Your task to perform on an android device: Add logitech g pro to the cart on walmart Image 0: 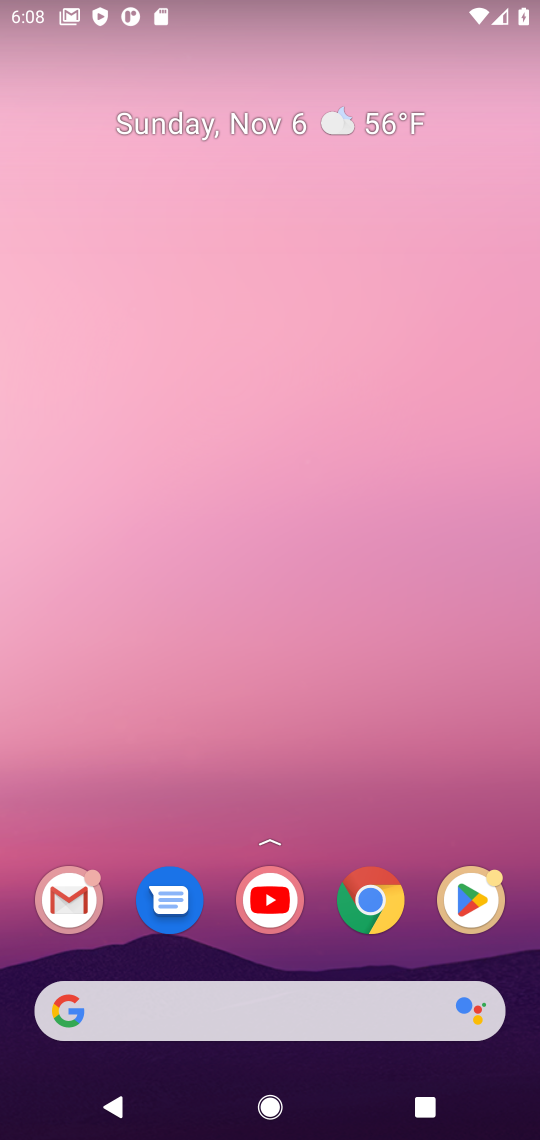
Step 0: drag from (319, 943) to (533, 397)
Your task to perform on an android device: Add logitech g pro to the cart on walmart Image 1: 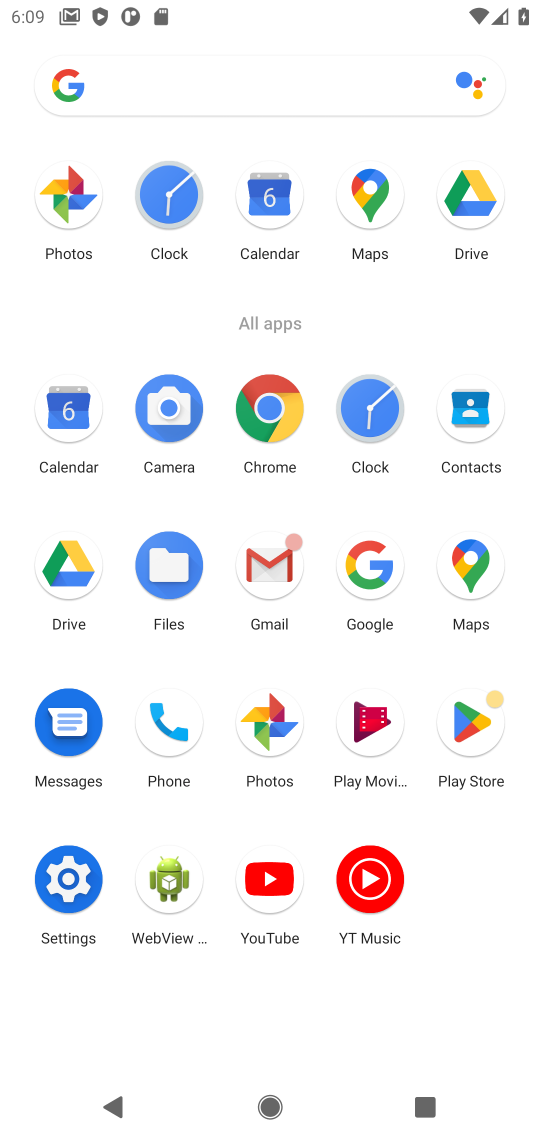
Step 1: click (268, 413)
Your task to perform on an android device: Add logitech g pro to the cart on walmart Image 2: 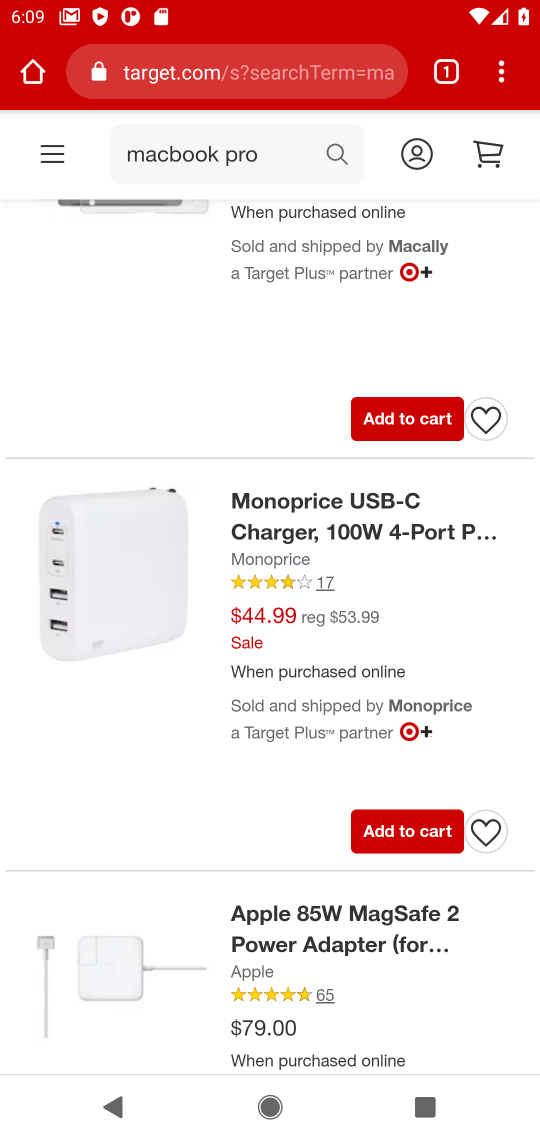
Step 2: click (273, 62)
Your task to perform on an android device: Add logitech g pro to the cart on walmart Image 3: 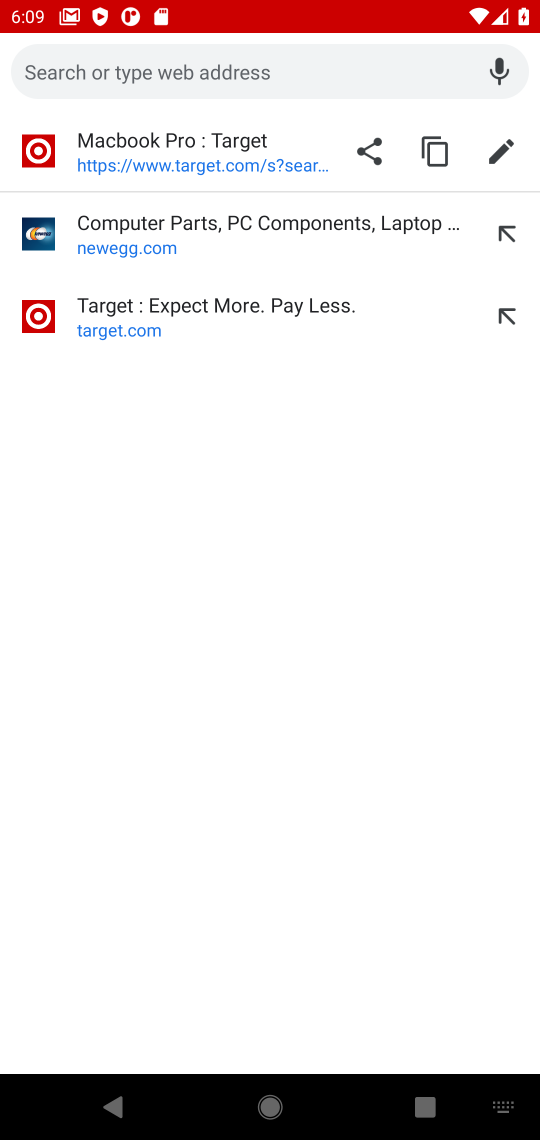
Step 3: type "walmart.com"
Your task to perform on an android device: Add logitech g pro to the cart on walmart Image 4: 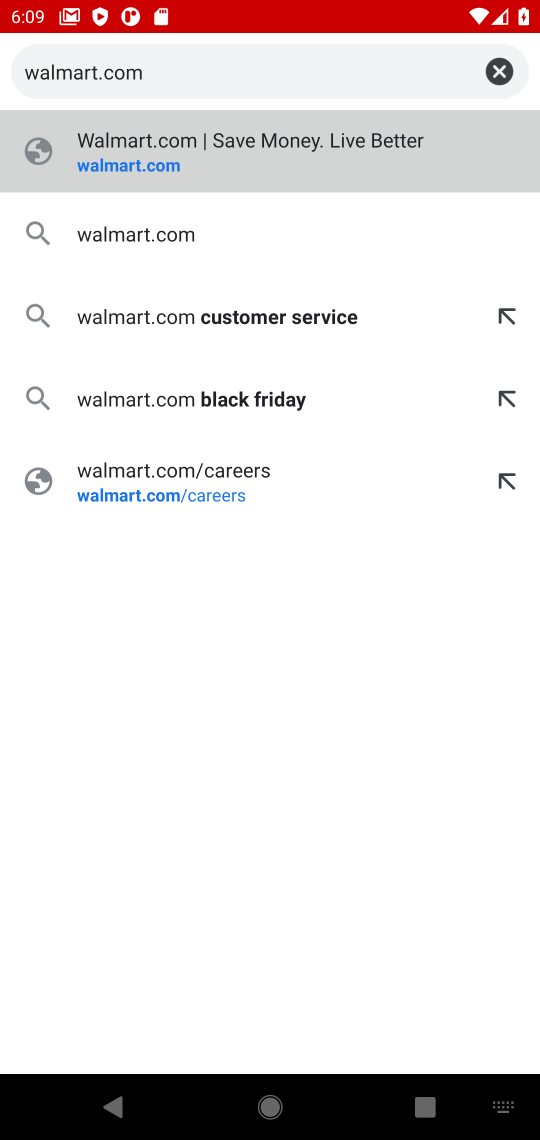
Step 4: press enter
Your task to perform on an android device: Add logitech g pro to the cart on walmart Image 5: 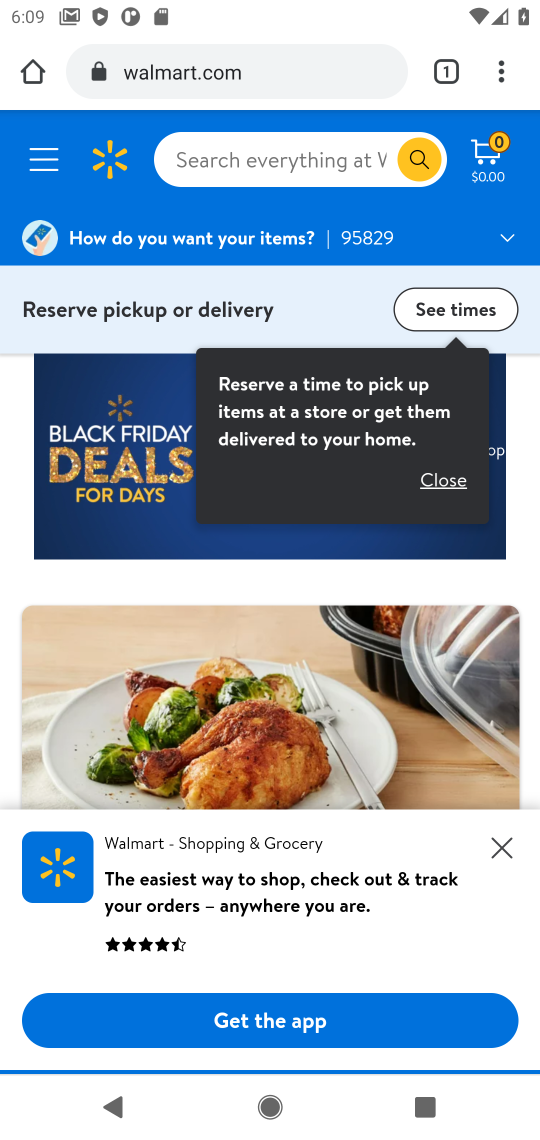
Step 5: click (247, 172)
Your task to perform on an android device: Add logitech g pro to the cart on walmart Image 6: 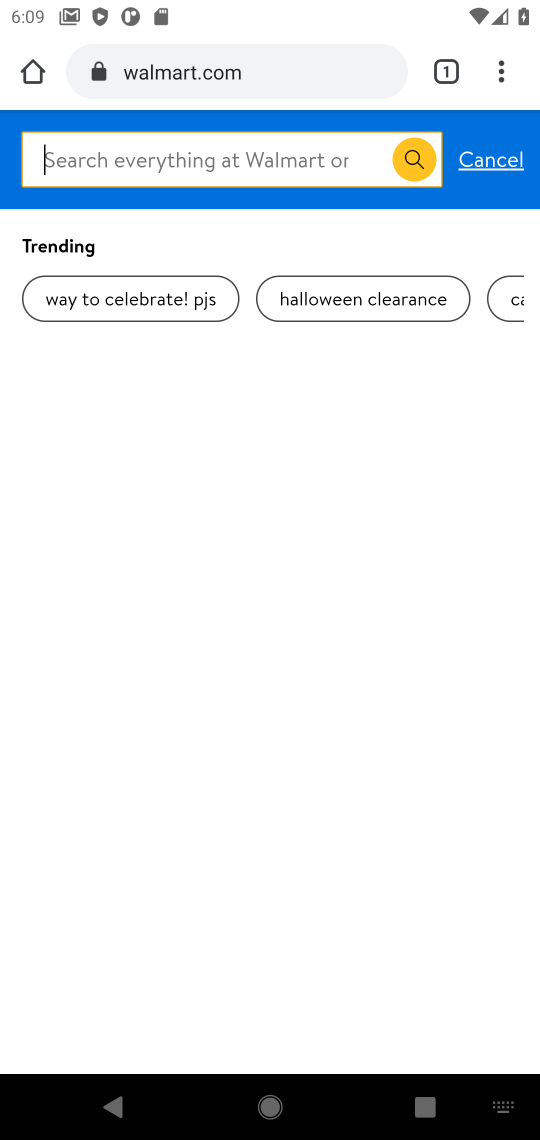
Step 6: type "logitech g pro"
Your task to perform on an android device: Add logitech g pro to the cart on walmart Image 7: 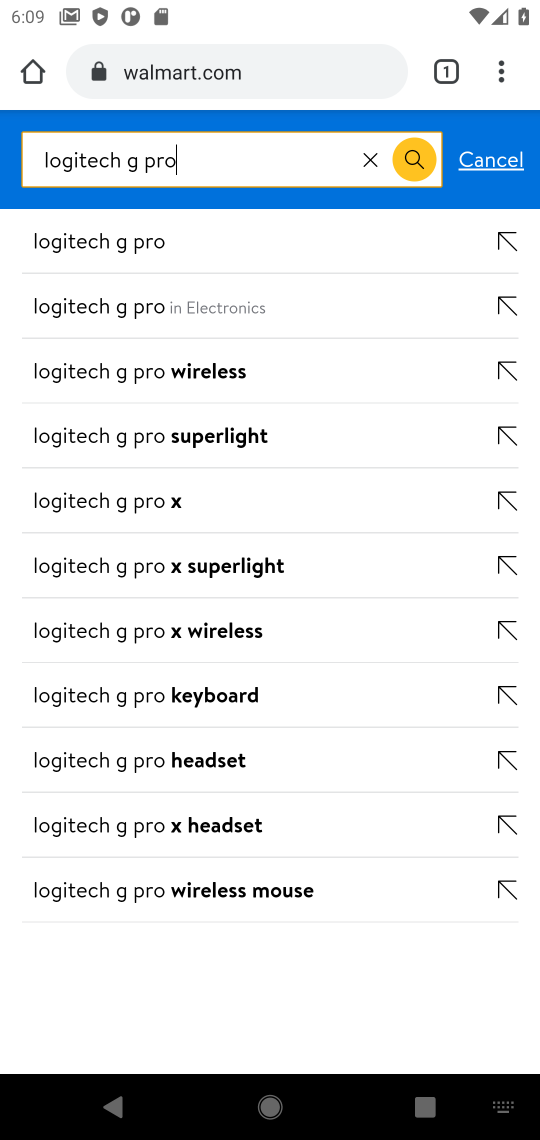
Step 7: press enter
Your task to perform on an android device: Add logitech g pro to the cart on walmart Image 8: 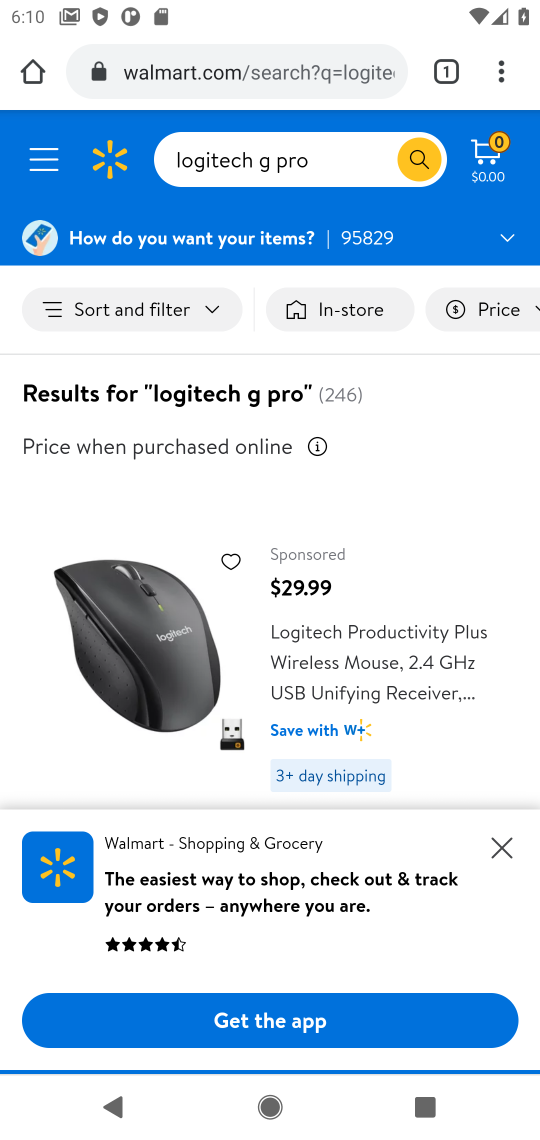
Step 8: drag from (417, 781) to (461, 294)
Your task to perform on an android device: Add logitech g pro to the cart on walmart Image 9: 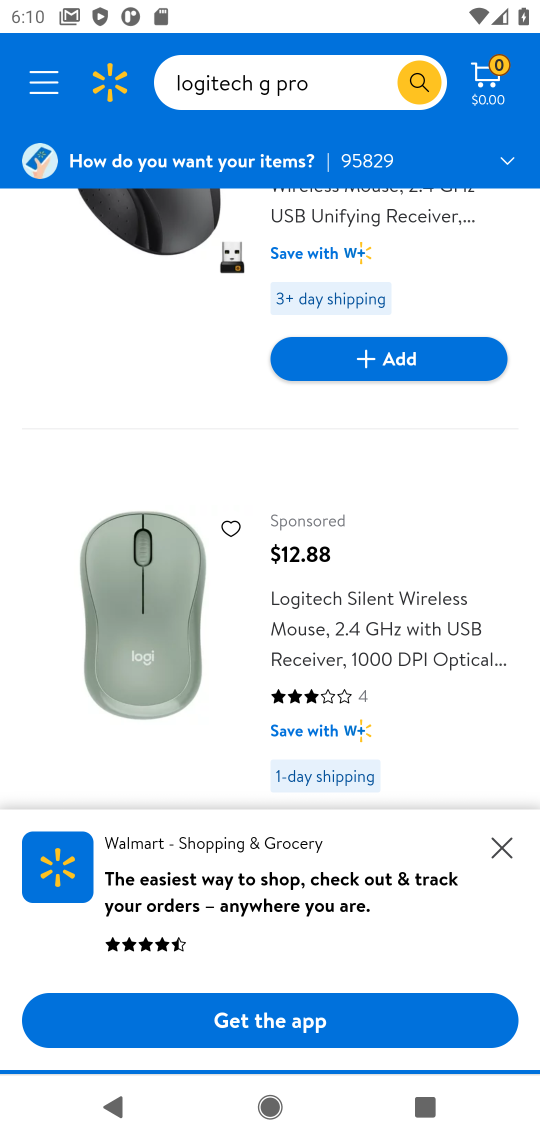
Step 9: drag from (371, 848) to (438, 133)
Your task to perform on an android device: Add logitech g pro to the cart on walmart Image 10: 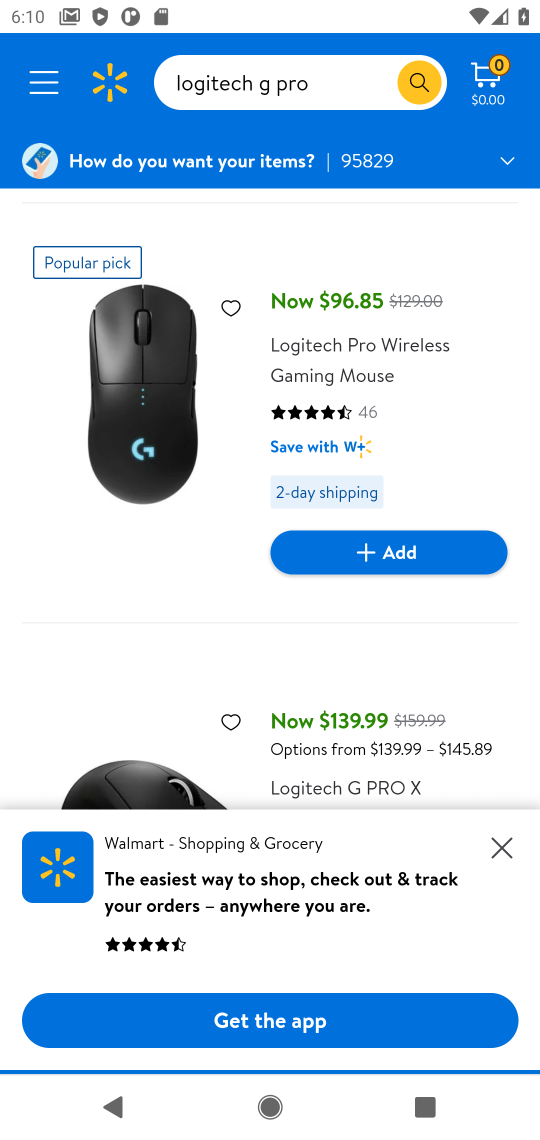
Step 10: drag from (376, 314) to (419, 127)
Your task to perform on an android device: Add logitech g pro to the cart on walmart Image 11: 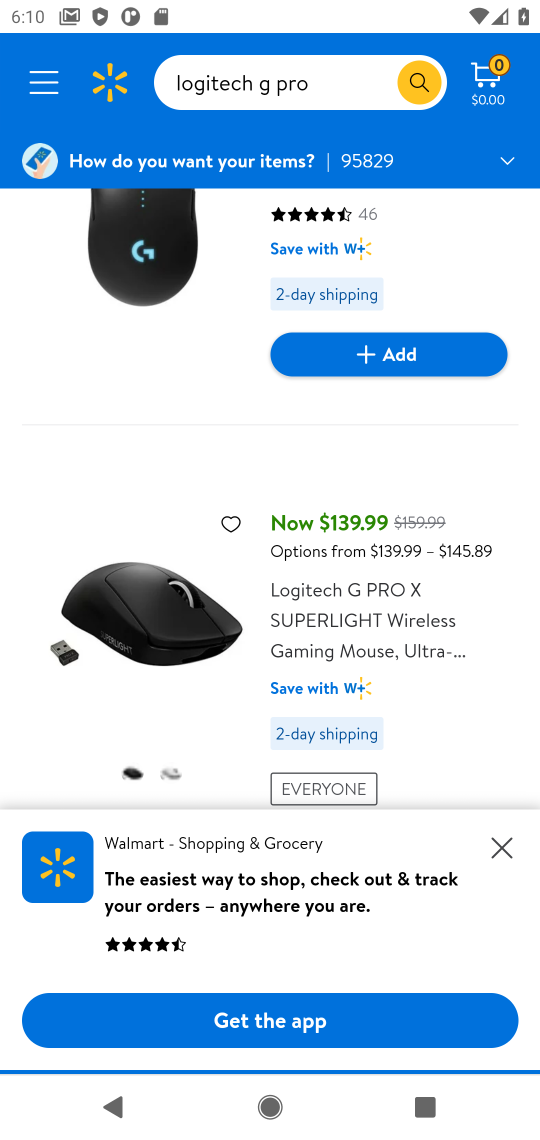
Step 11: drag from (336, 651) to (366, 339)
Your task to perform on an android device: Add logitech g pro to the cart on walmart Image 12: 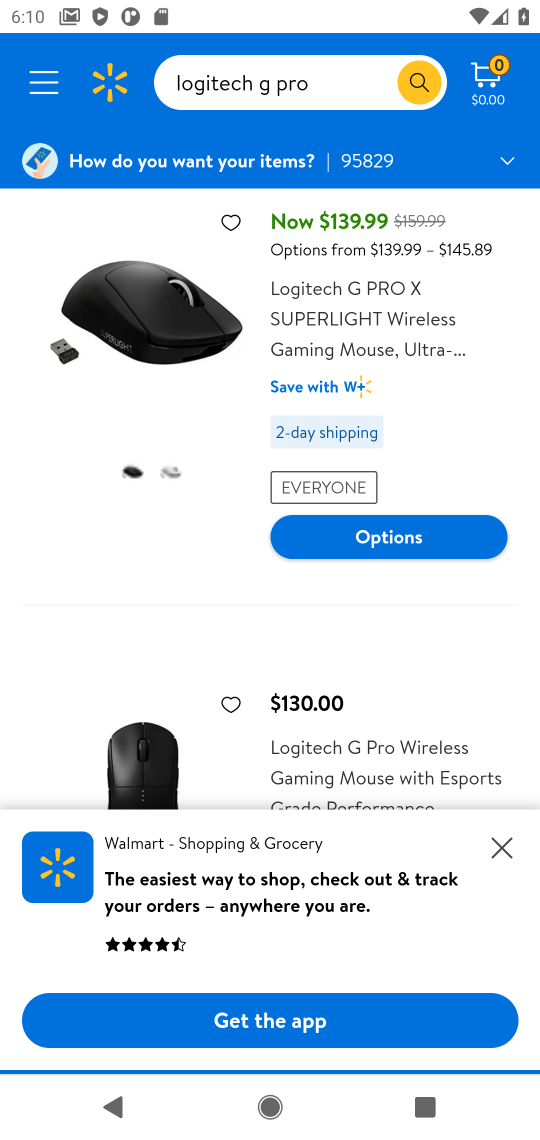
Step 12: drag from (314, 747) to (323, 241)
Your task to perform on an android device: Add logitech g pro to the cart on walmart Image 13: 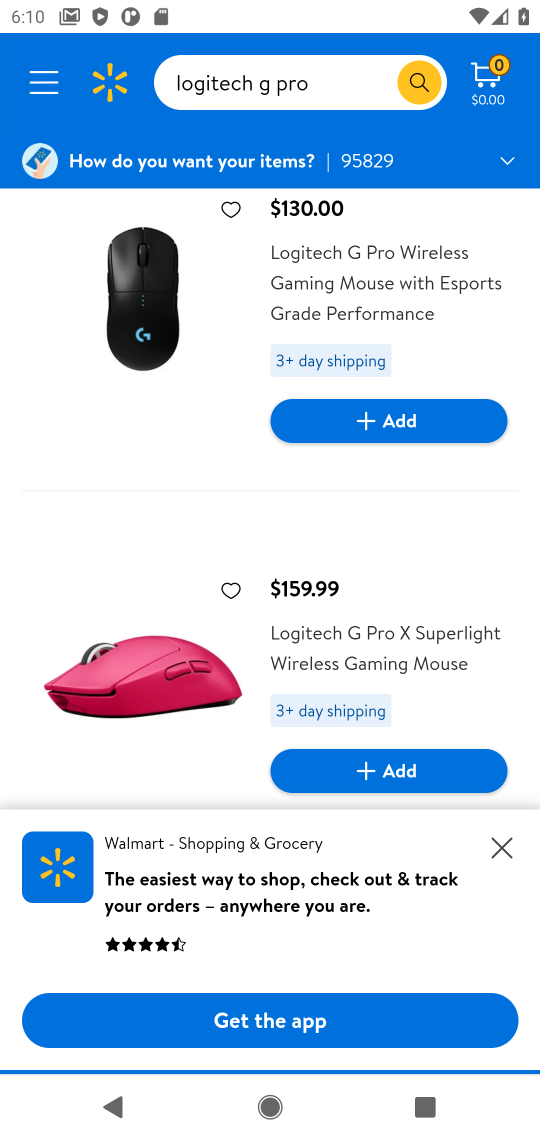
Step 13: click (402, 425)
Your task to perform on an android device: Add logitech g pro to the cart on walmart Image 14: 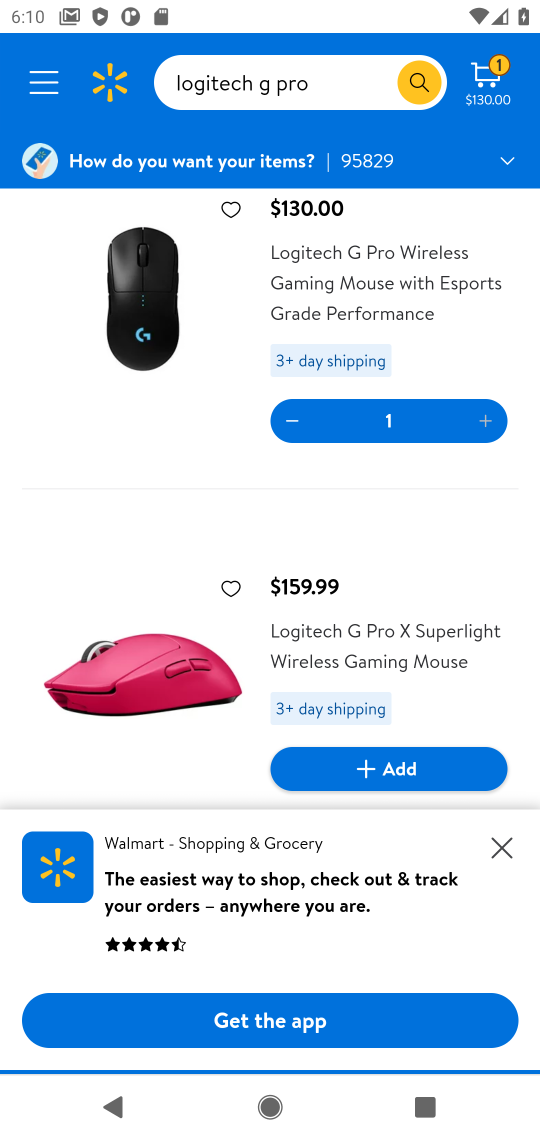
Step 14: task complete